Your task to perform on an android device: see sites visited before in the chrome app Image 0: 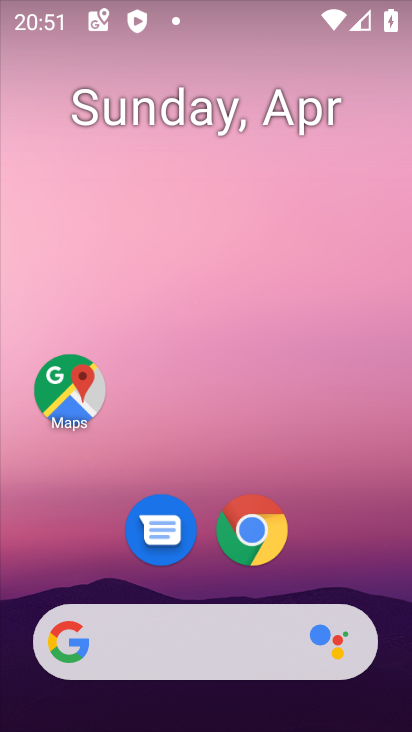
Step 0: click (269, 538)
Your task to perform on an android device: see sites visited before in the chrome app Image 1: 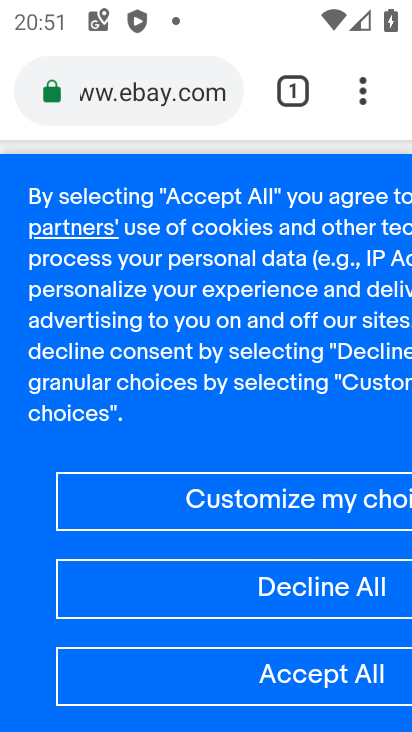
Step 1: click (365, 82)
Your task to perform on an android device: see sites visited before in the chrome app Image 2: 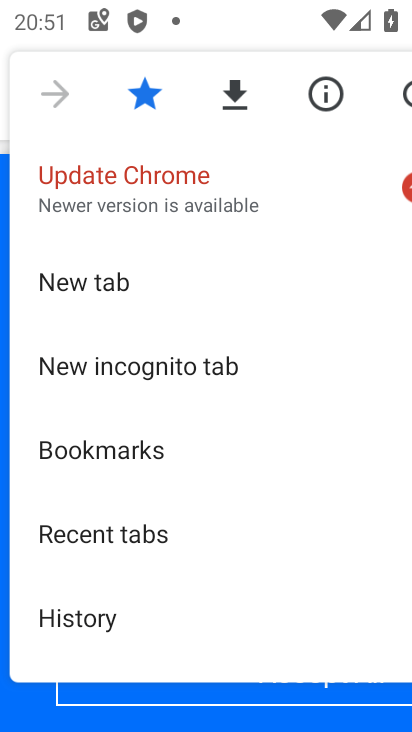
Step 2: click (113, 627)
Your task to perform on an android device: see sites visited before in the chrome app Image 3: 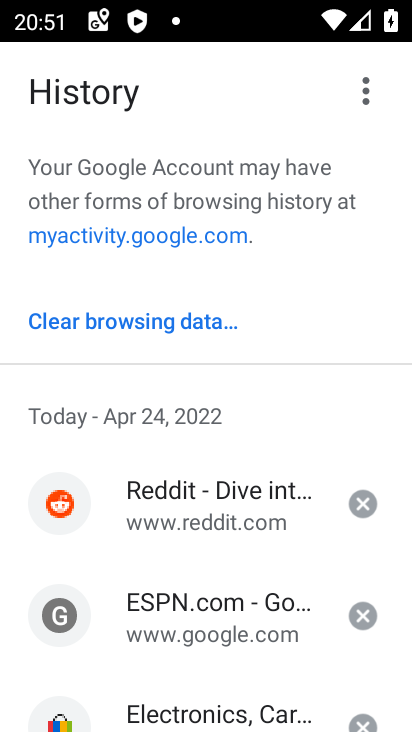
Step 3: task complete